Your task to perform on an android device: Open Youtube and go to the subscriptions tab Image 0: 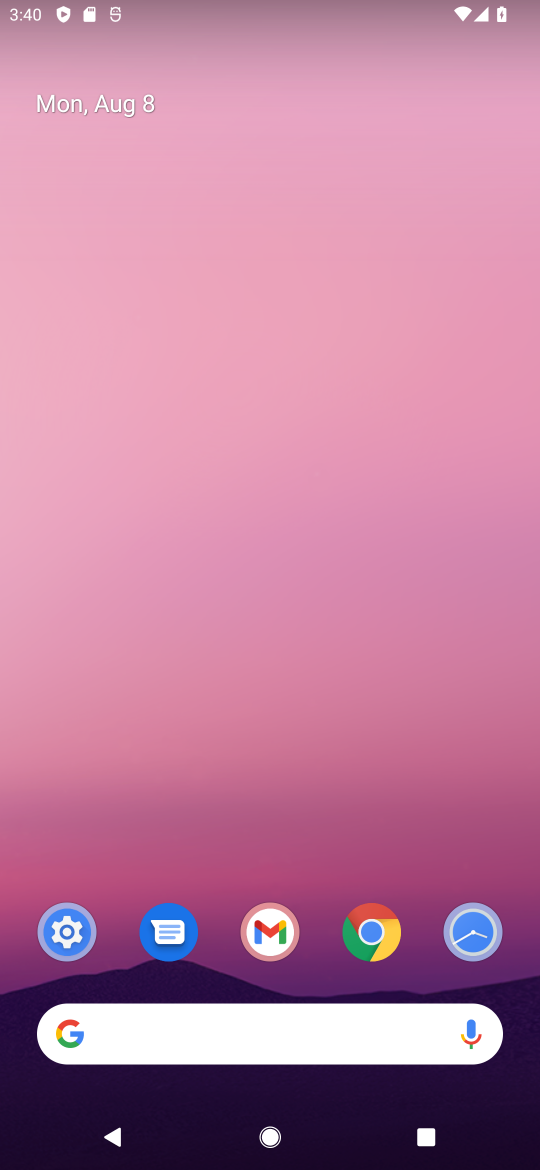
Step 0: drag from (135, 1015) to (217, 494)
Your task to perform on an android device: Open Youtube and go to the subscriptions tab Image 1: 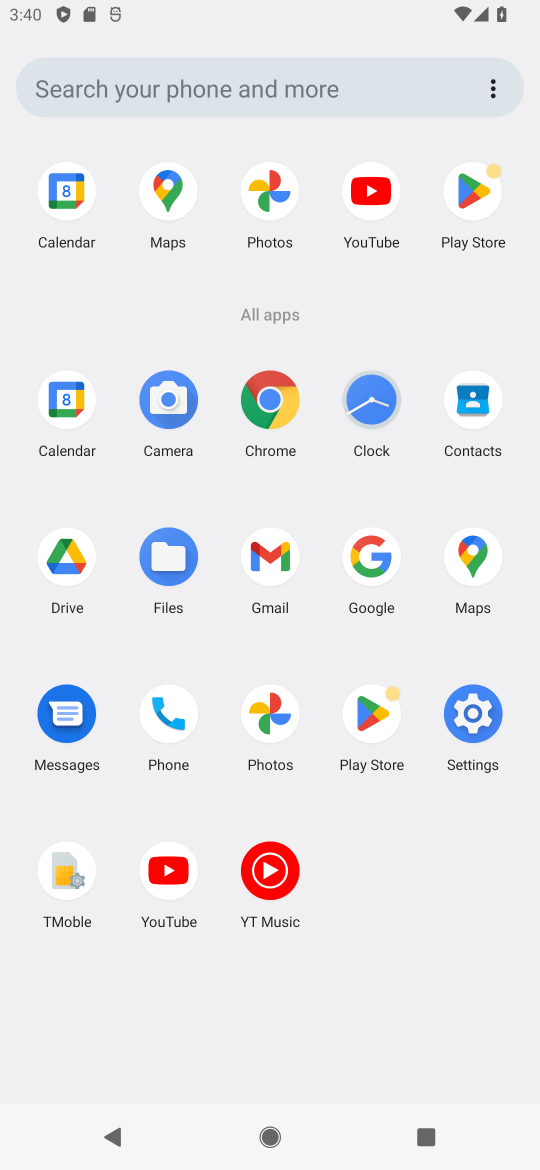
Step 1: click (155, 873)
Your task to perform on an android device: Open Youtube and go to the subscriptions tab Image 2: 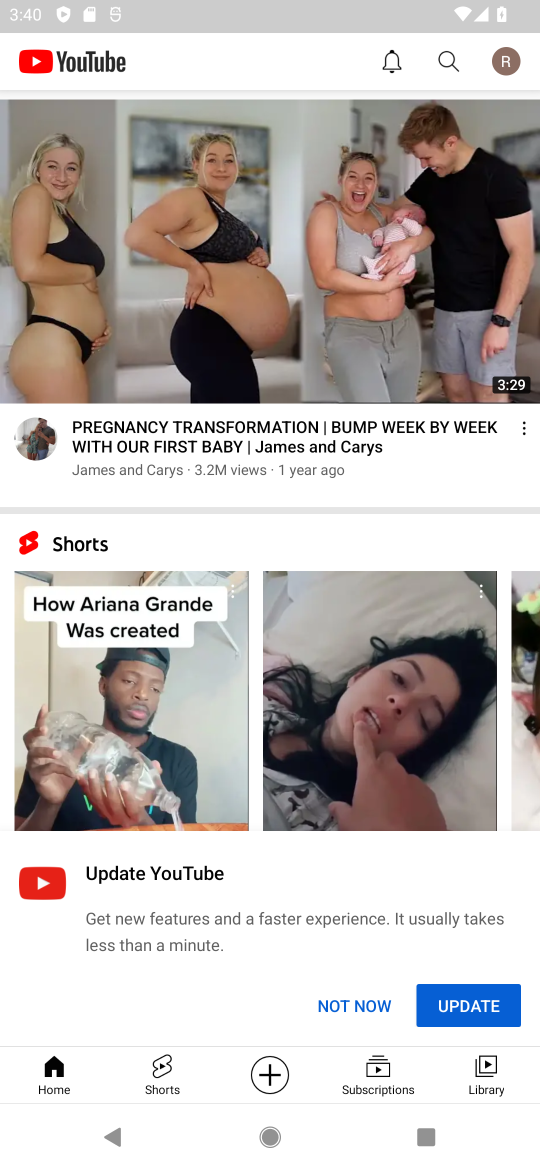
Step 2: click (393, 1091)
Your task to perform on an android device: Open Youtube and go to the subscriptions tab Image 3: 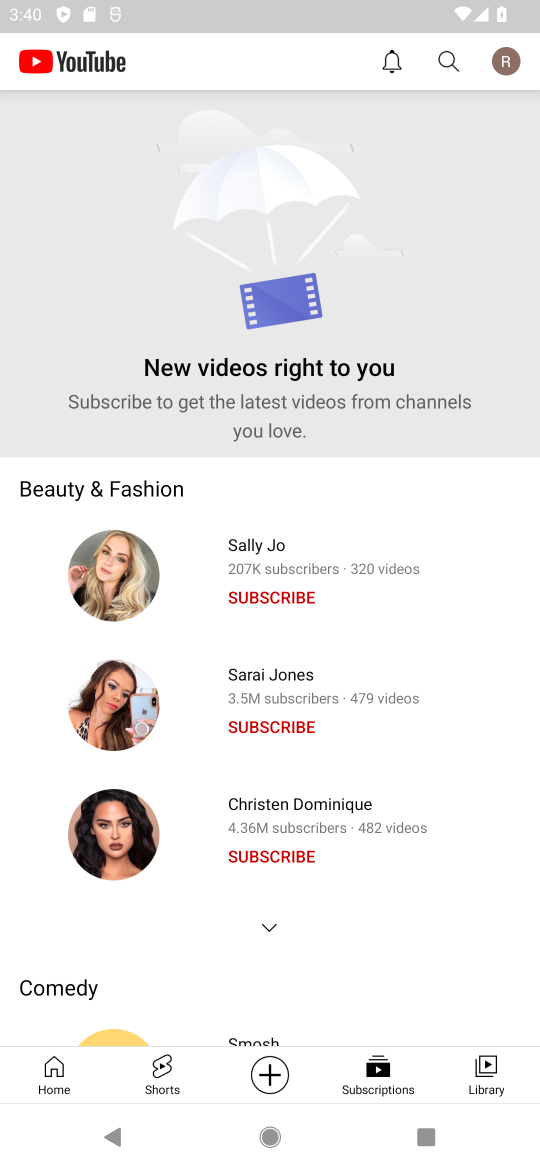
Step 3: task complete